Your task to perform on an android device: clear history in the chrome app Image 0: 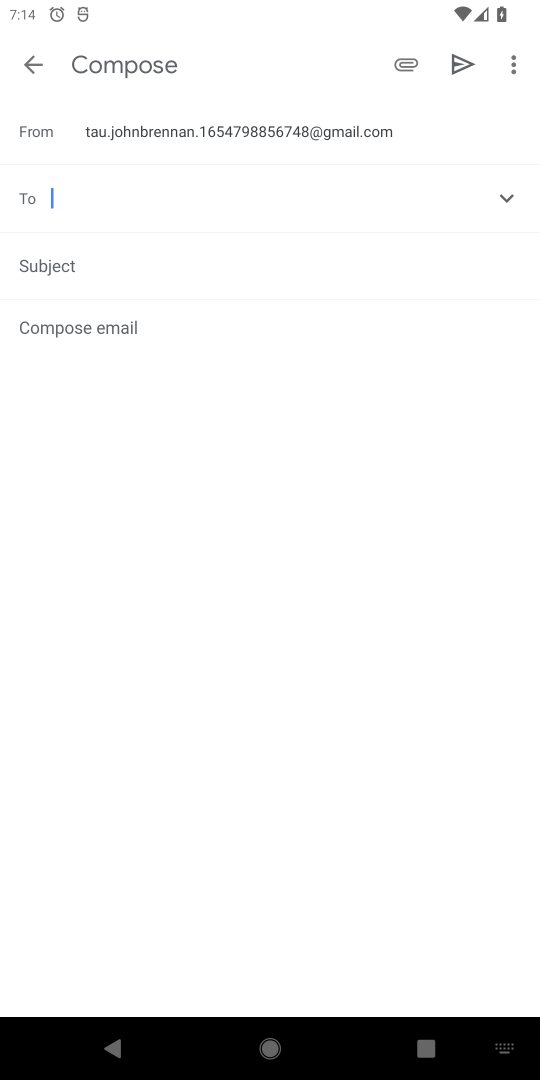
Step 0: press home button
Your task to perform on an android device: clear history in the chrome app Image 1: 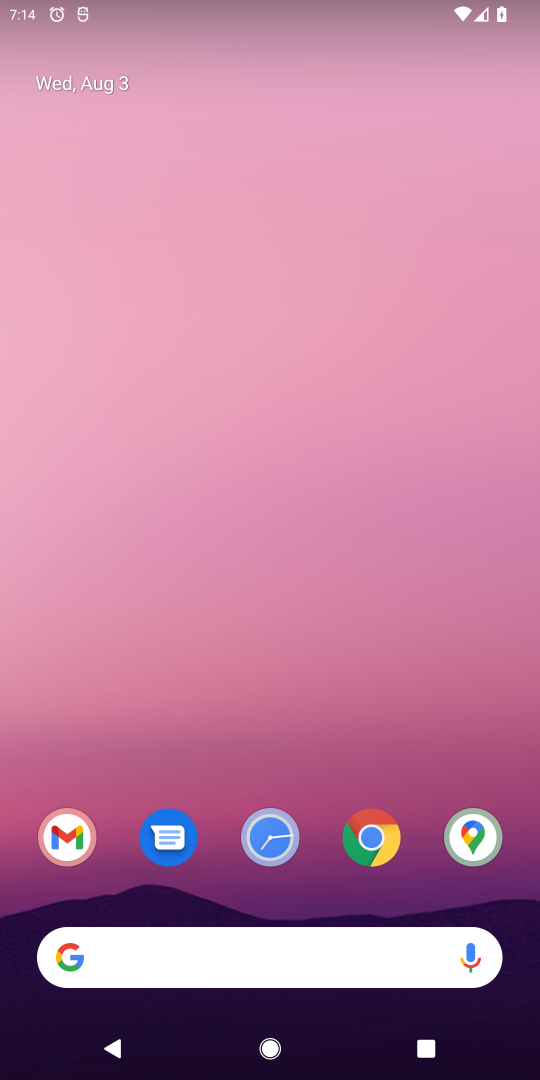
Step 1: click (393, 827)
Your task to perform on an android device: clear history in the chrome app Image 2: 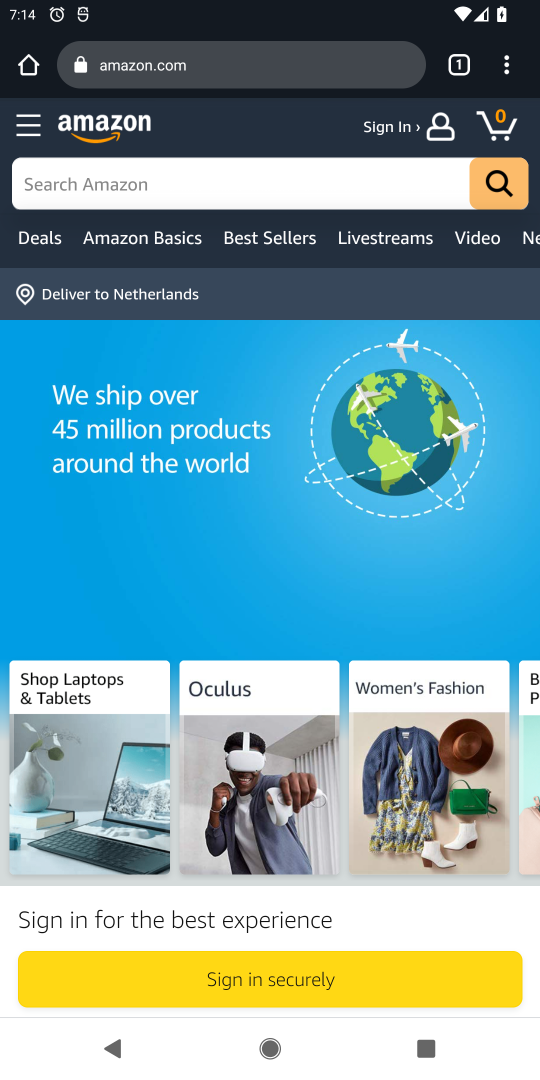
Step 2: drag from (506, 72) to (323, 853)
Your task to perform on an android device: clear history in the chrome app Image 3: 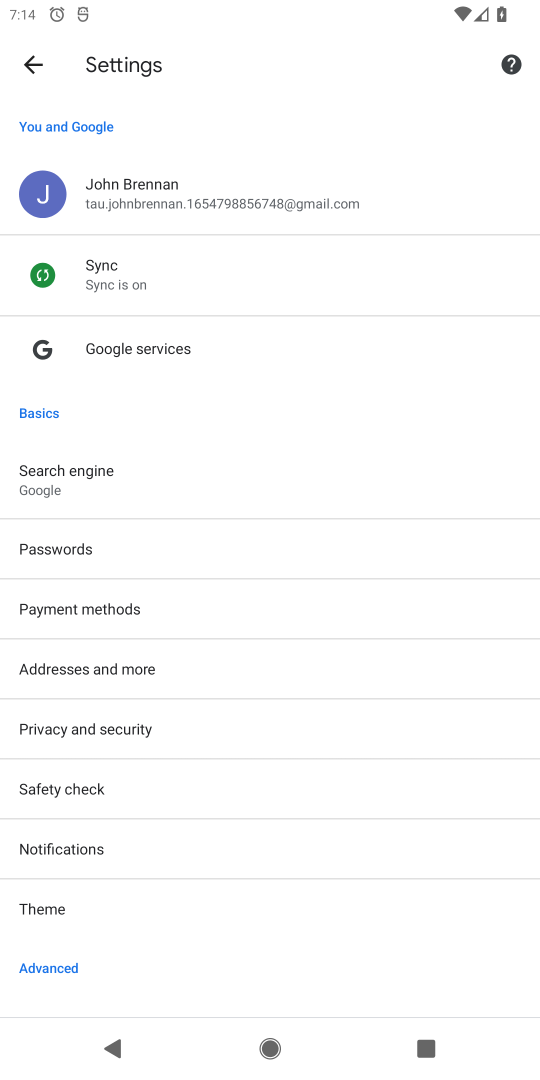
Step 3: drag from (188, 952) to (152, 674)
Your task to perform on an android device: clear history in the chrome app Image 4: 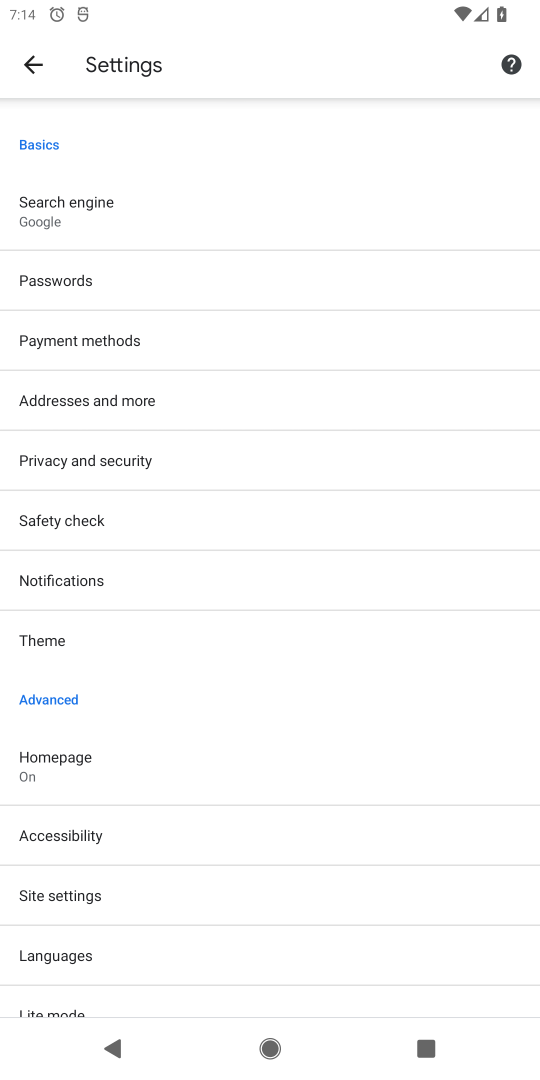
Step 4: click (85, 463)
Your task to perform on an android device: clear history in the chrome app Image 5: 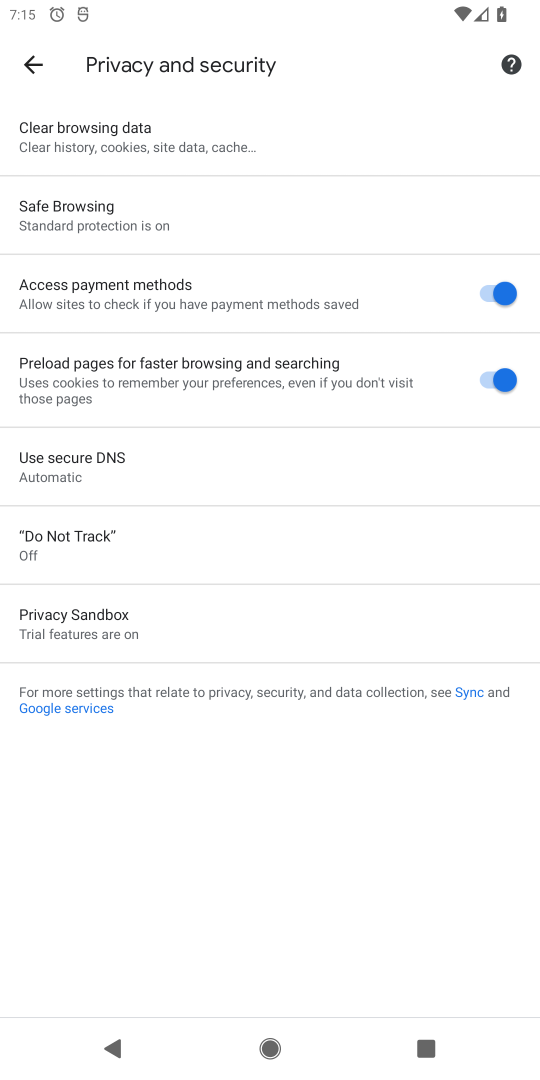
Step 5: drag from (155, 224) to (187, 149)
Your task to perform on an android device: clear history in the chrome app Image 6: 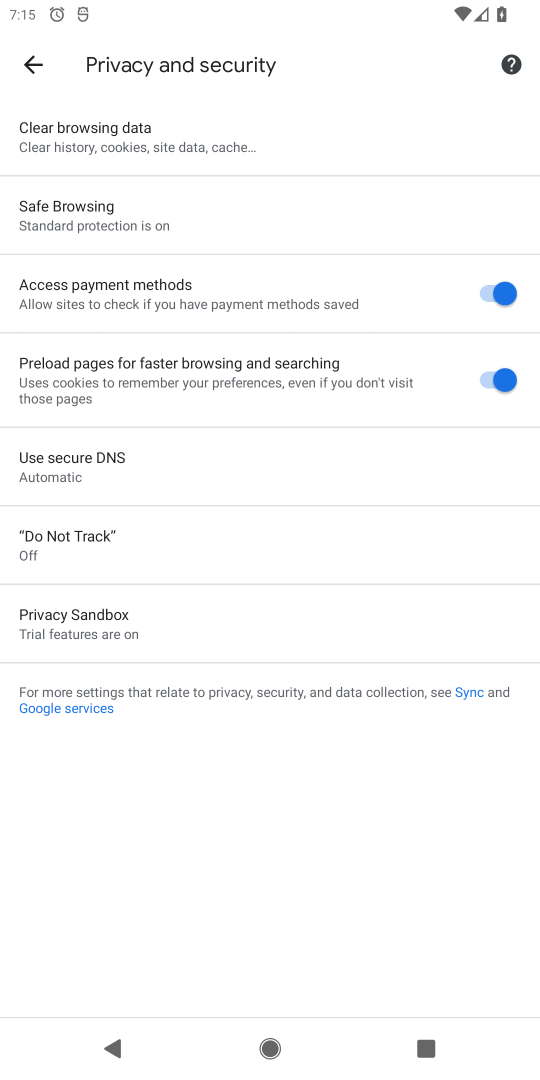
Step 6: click (160, 131)
Your task to perform on an android device: clear history in the chrome app Image 7: 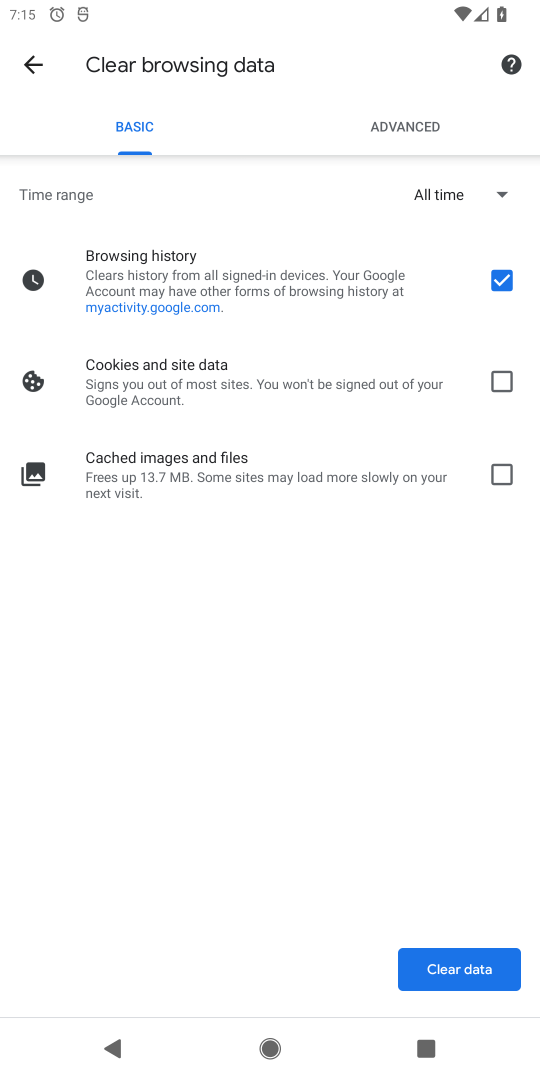
Step 7: click (491, 975)
Your task to perform on an android device: clear history in the chrome app Image 8: 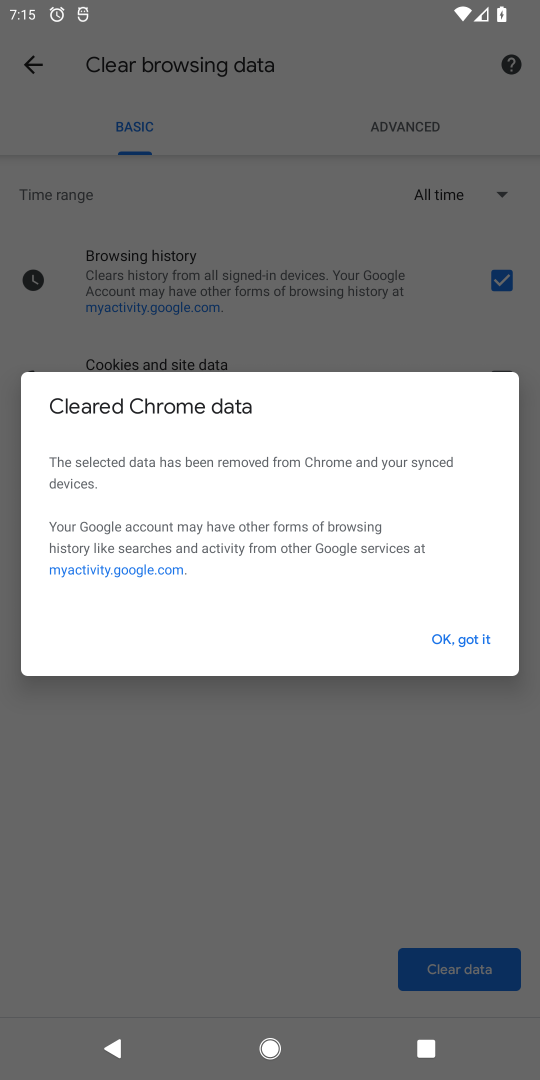
Step 8: click (462, 646)
Your task to perform on an android device: clear history in the chrome app Image 9: 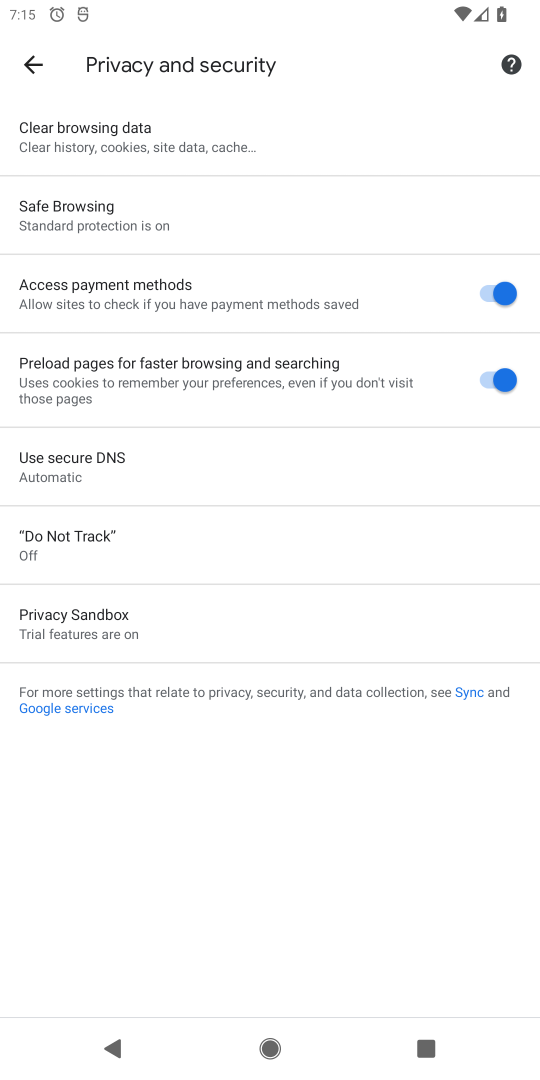
Step 9: task complete